Your task to perform on an android device: all mails in gmail Image 0: 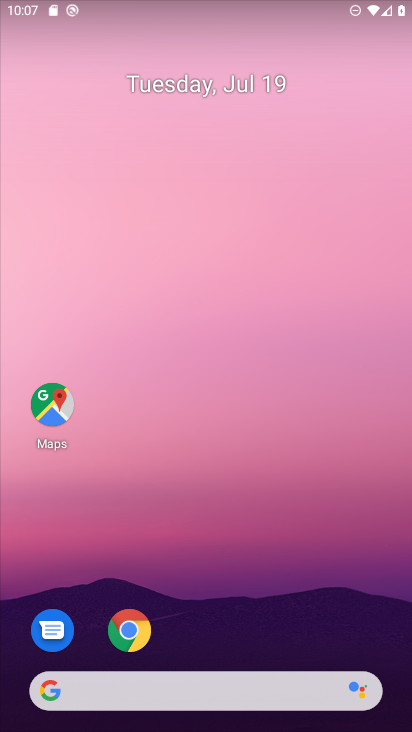
Step 0: drag from (11, 685) to (231, 227)
Your task to perform on an android device: all mails in gmail Image 1: 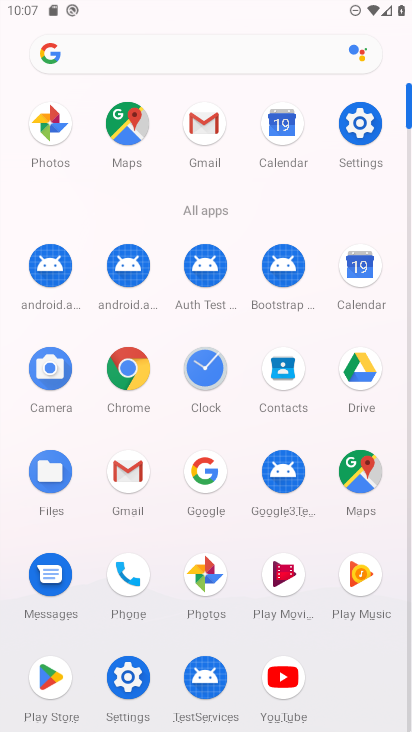
Step 1: click (128, 489)
Your task to perform on an android device: all mails in gmail Image 2: 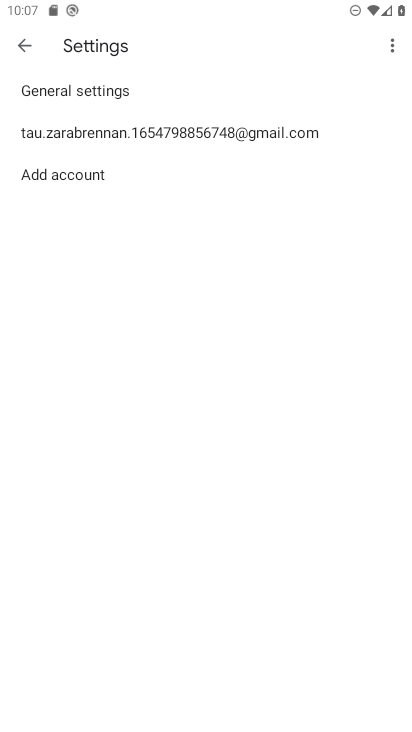
Step 2: click (27, 41)
Your task to perform on an android device: all mails in gmail Image 3: 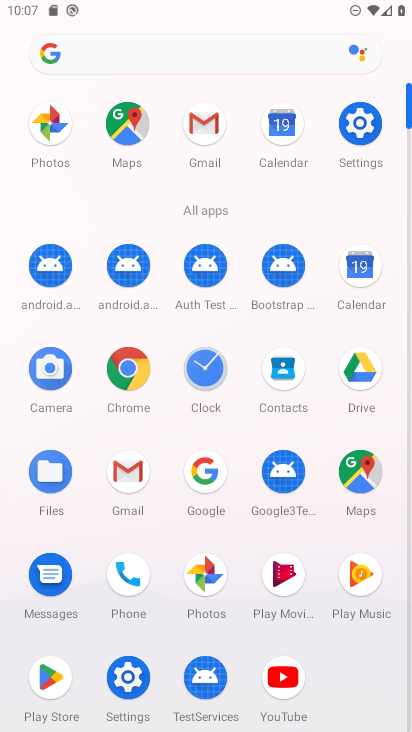
Step 3: click (203, 138)
Your task to perform on an android device: all mails in gmail Image 4: 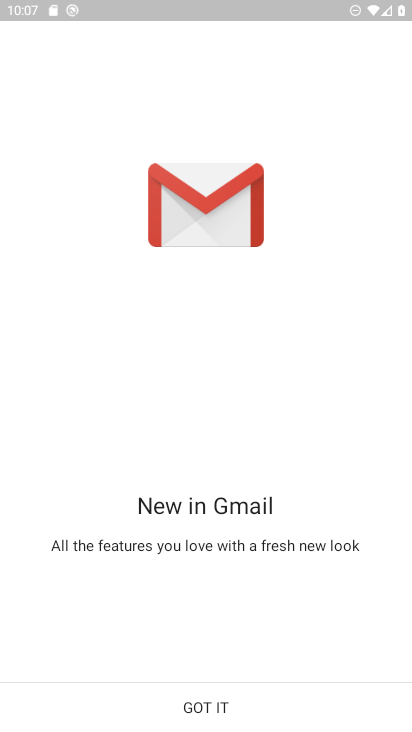
Step 4: click (214, 705)
Your task to perform on an android device: all mails in gmail Image 5: 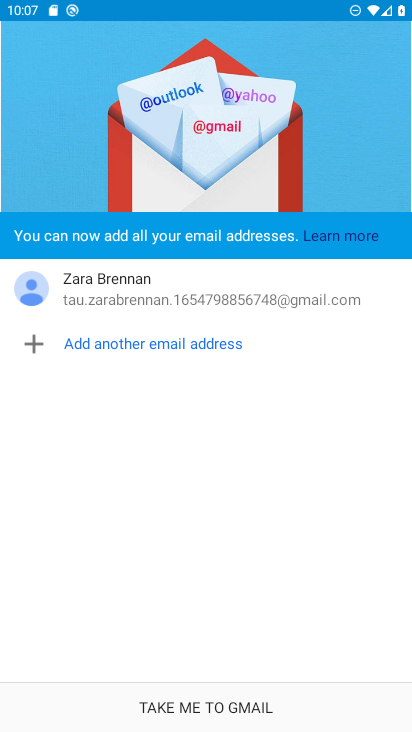
Step 5: click (184, 712)
Your task to perform on an android device: all mails in gmail Image 6: 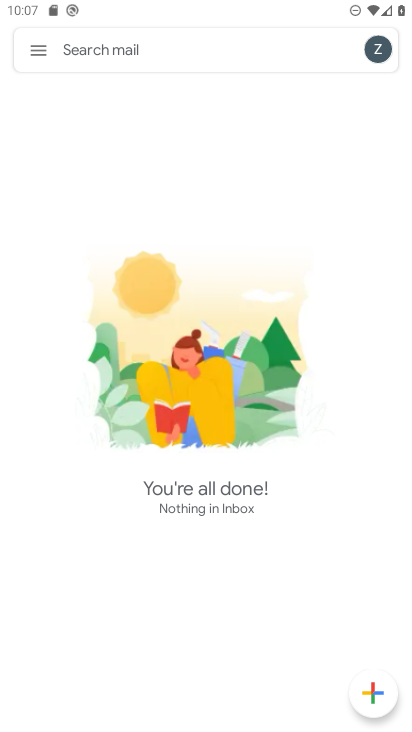
Step 6: click (41, 59)
Your task to perform on an android device: all mails in gmail Image 7: 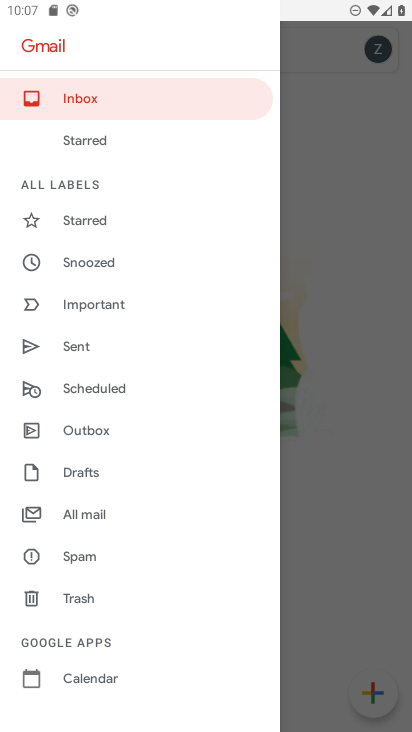
Step 7: click (85, 507)
Your task to perform on an android device: all mails in gmail Image 8: 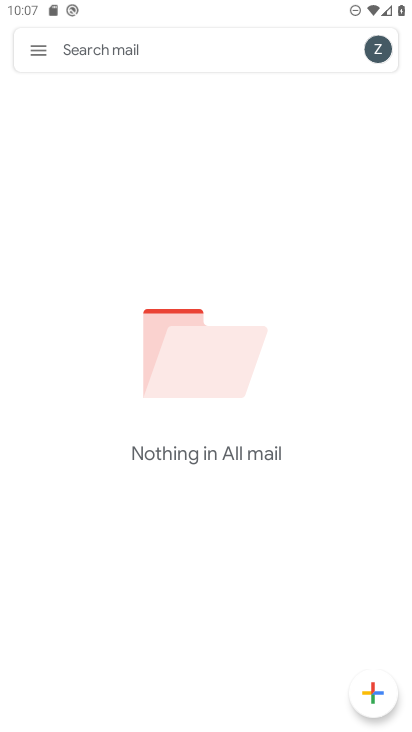
Step 8: task complete